Your task to perform on an android device: Go to Reddit.com Image 0: 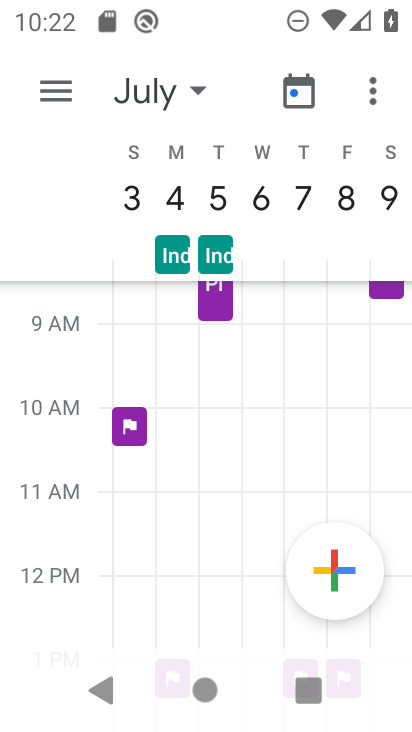
Step 0: press home button
Your task to perform on an android device: Go to Reddit.com Image 1: 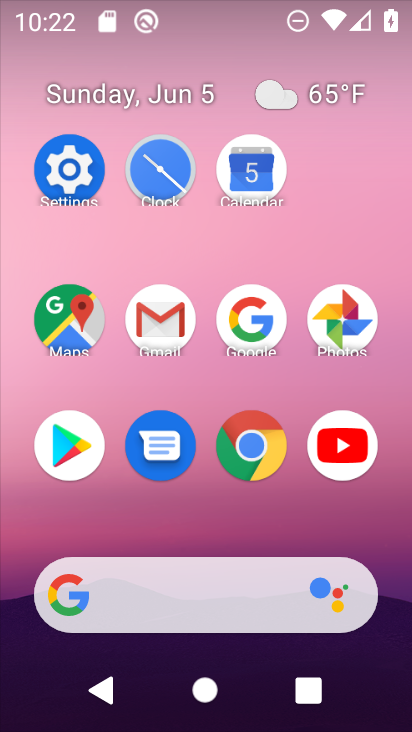
Step 1: click (252, 321)
Your task to perform on an android device: Go to Reddit.com Image 2: 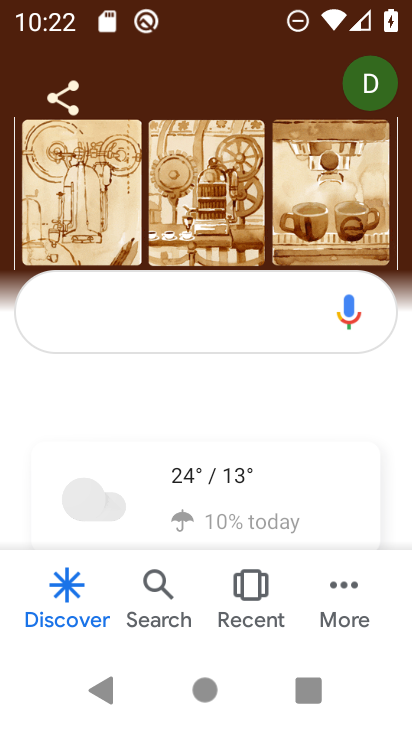
Step 2: click (248, 316)
Your task to perform on an android device: Go to Reddit.com Image 3: 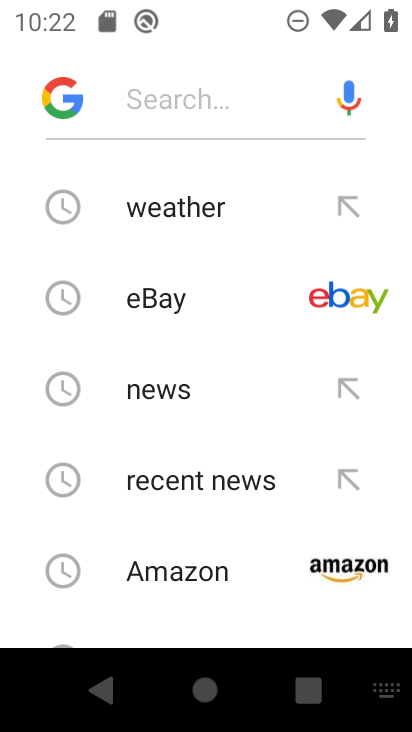
Step 3: drag from (224, 498) to (250, 158)
Your task to perform on an android device: Go to Reddit.com Image 4: 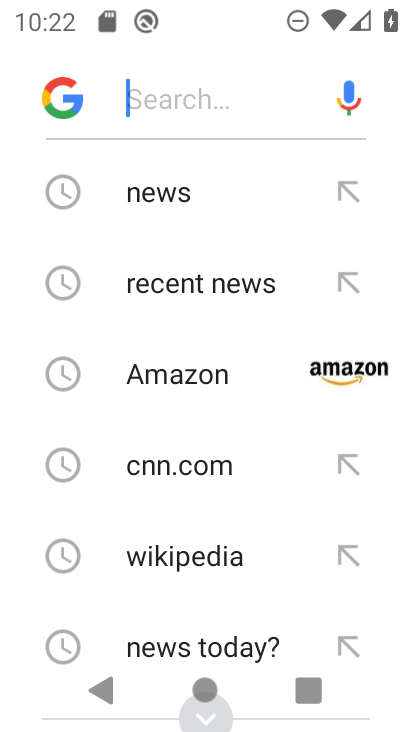
Step 4: drag from (265, 458) to (266, 166)
Your task to perform on an android device: Go to Reddit.com Image 5: 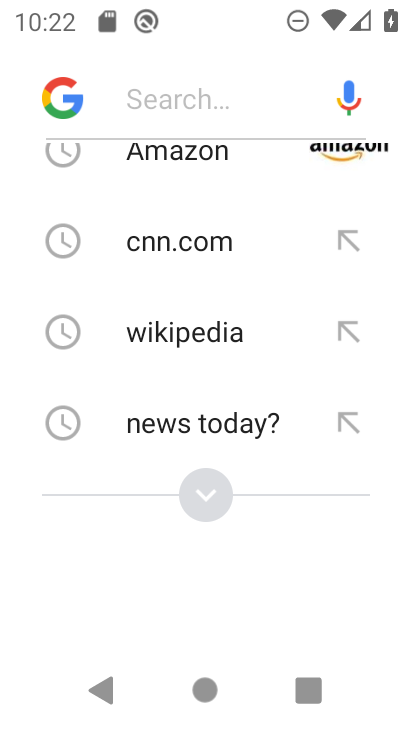
Step 5: type "reddit"
Your task to perform on an android device: Go to Reddit.com Image 6: 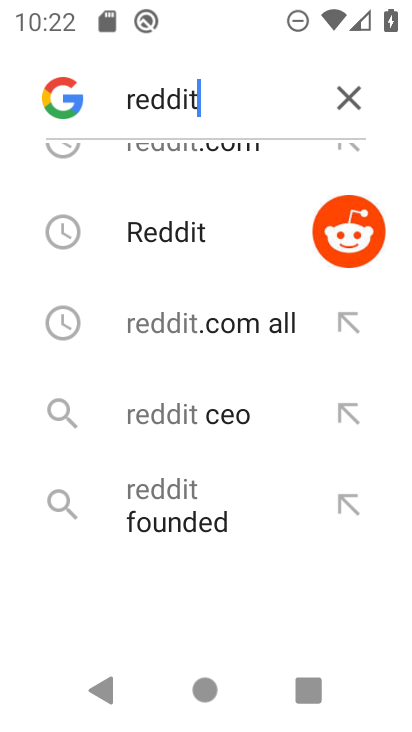
Step 6: click (153, 204)
Your task to perform on an android device: Go to Reddit.com Image 7: 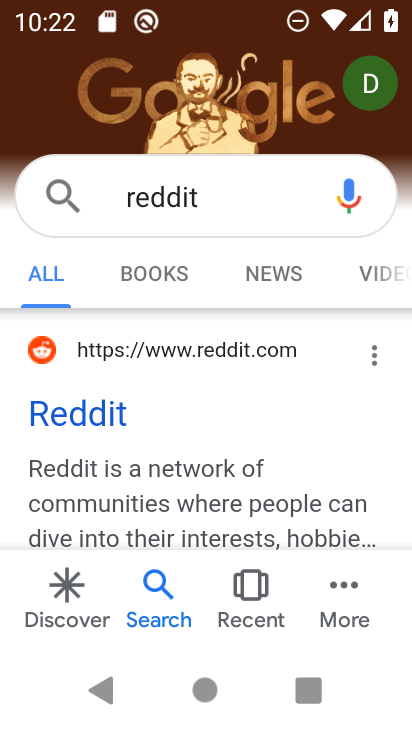
Step 7: click (99, 418)
Your task to perform on an android device: Go to Reddit.com Image 8: 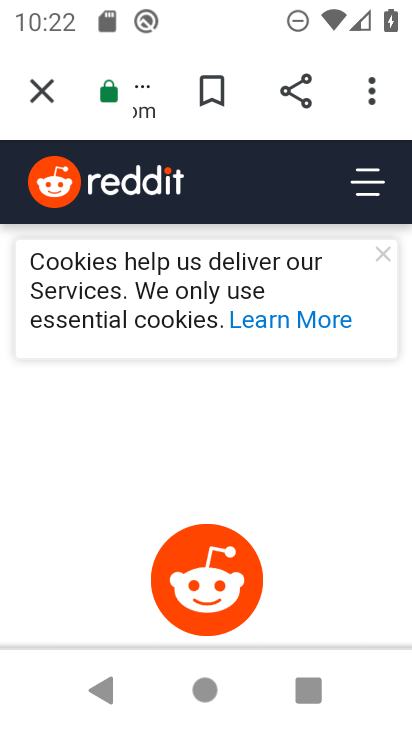
Step 8: task complete